Your task to perform on an android device: turn off picture-in-picture Image 0: 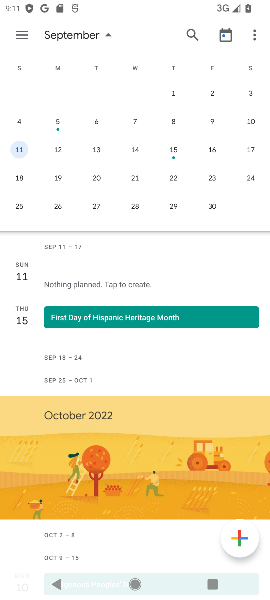
Step 0: press home button
Your task to perform on an android device: turn off picture-in-picture Image 1: 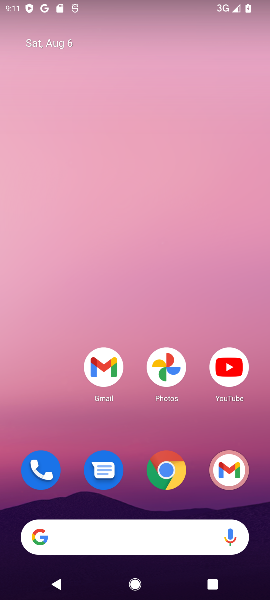
Step 1: drag from (151, 553) to (155, 155)
Your task to perform on an android device: turn off picture-in-picture Image 2: 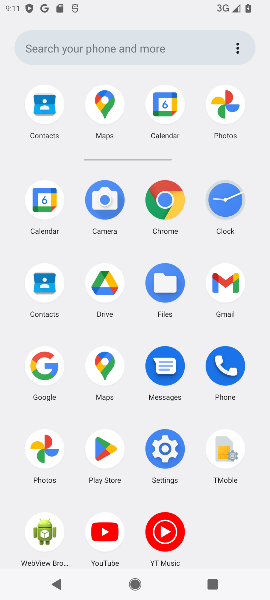
Step 2: click (169, 446)
Your task to perform on an android device: turn off picture-in-picture Image 3: 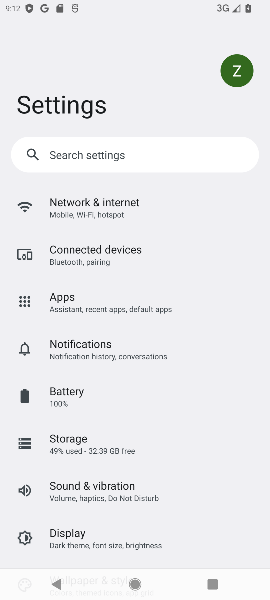
Step 3: click (90, 306)
Your task to perform on an android device: turn off picture-in-picture Image 4: 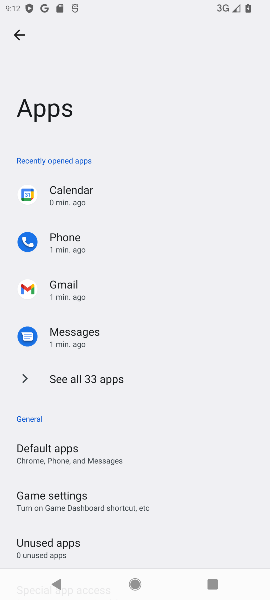
Step 4: drag from (105, 482) to (147, 220)
Your task to perform on an android device: turn off picture-in-picture Image 5: 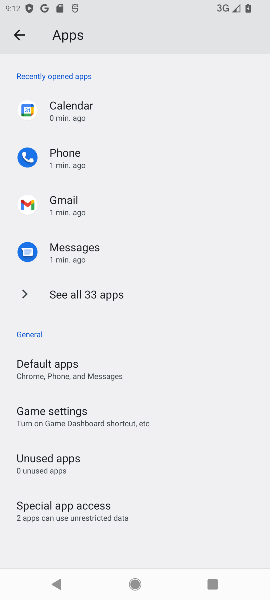
Step 5: drag from (117, 474) to (153, 216)
Your task to perform on an android device: turn off picture-in-picture Image 6: 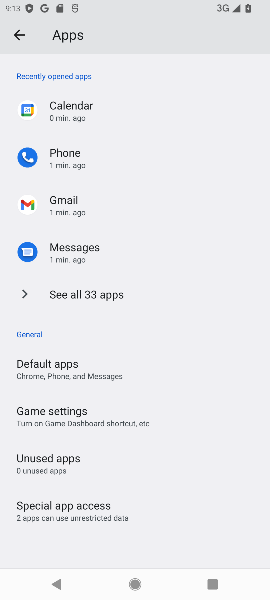
Step 6: drag from (69, 476) to (98, 325)
Your task to perform on an android device: turn off picture-in-picture Image 7: 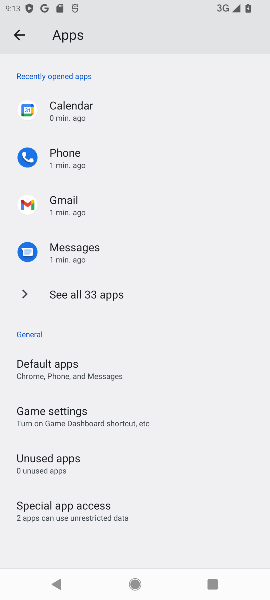
Step 7: drag from (85, 456) to (117, 194)
Your task to perform on an android device: turn off picture-in-picture Image 8: 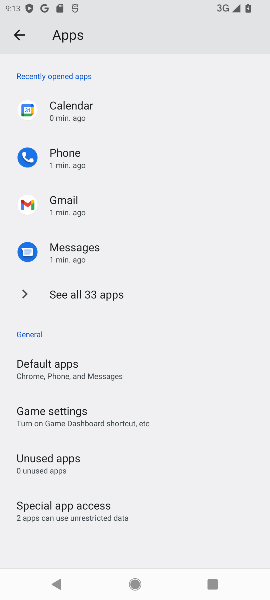
Step 8: click (93, 508)
Your task to perform on an android device: turn off picture-in-picture Image 9: 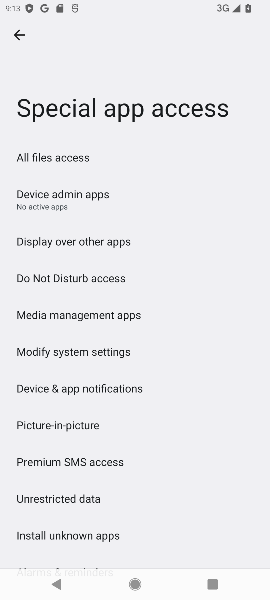
Step 9: click (36, 427)
Your task to perform on an android device: turn off picture-in-picture Image 10: 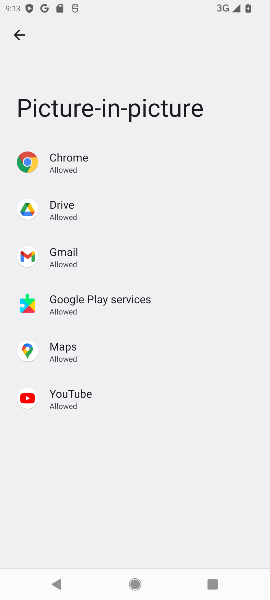
Step 10: click (77, 170)
Your task to perform on an android device: turn off picture-in-picture Image 11: 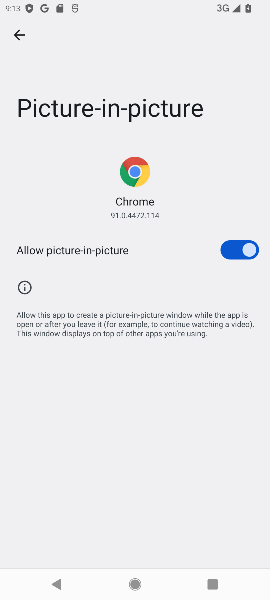
Step 11: click (230, 251)
Your task to perform on an android device: turn off picture-in-picture Image 12: 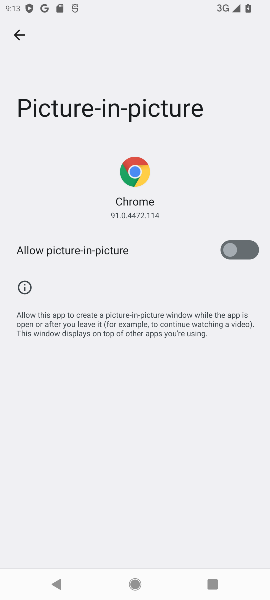
Step 12: task complete